Your task to perform on an android device: Open the web browser Image 0: 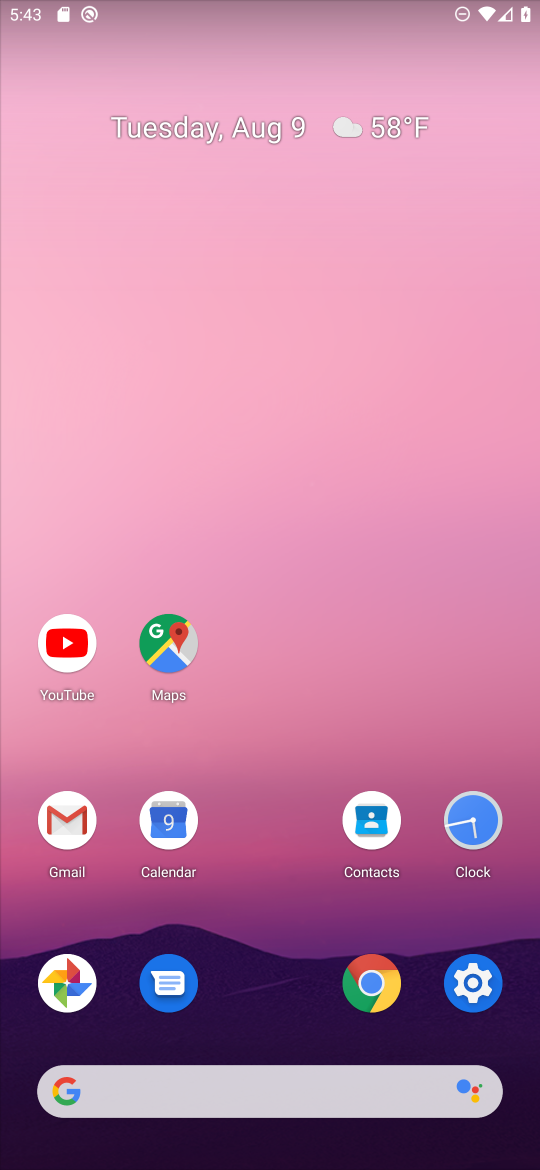
Step 0: click (375, 982)
Your task to perform on an android device: Open the web browser Image 1: 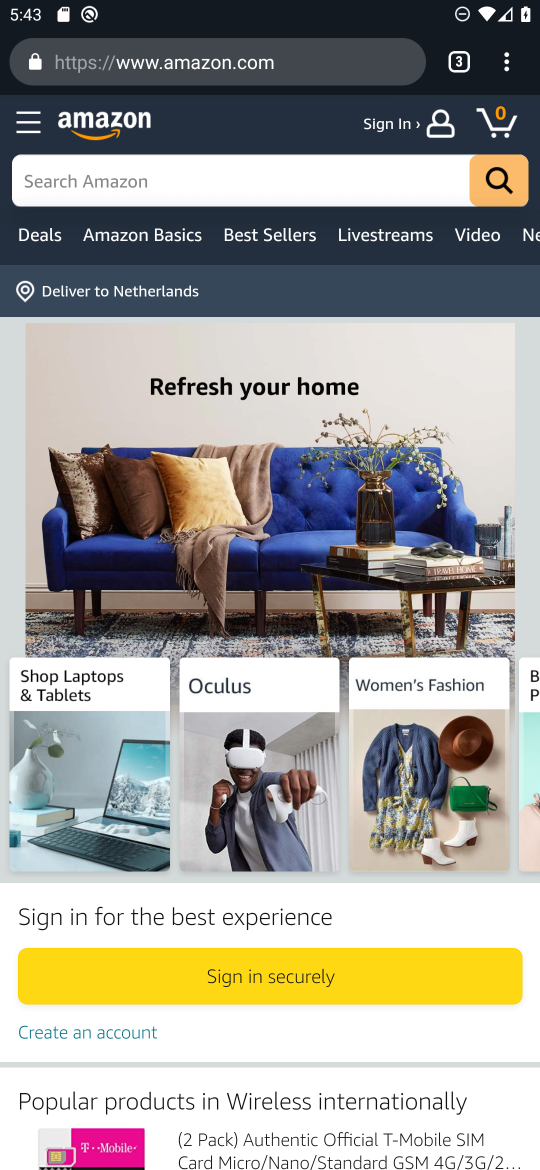
Step 1: task complete